Your task to perform on an android device: toggle improve location accuracy Image 0: 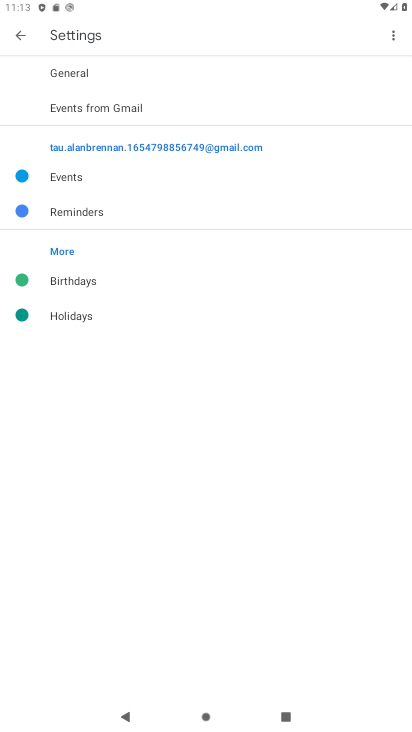
Step 0: press home button
Your task to perform on an android device: toggle improve location accuracy Image 1: 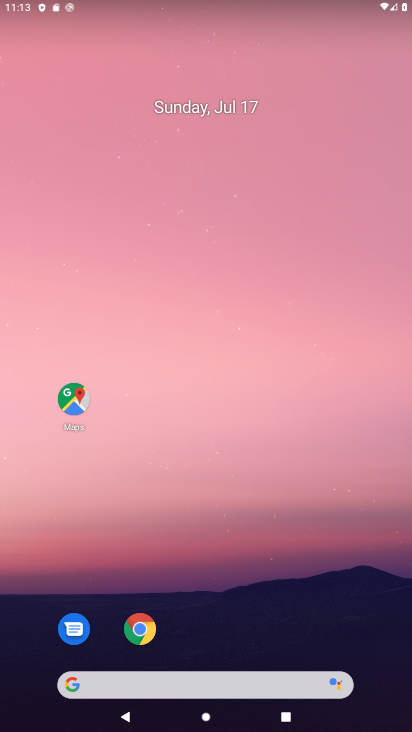
Step 1: drag from (311, 646) to (280, 3)
Your task to perform on an android device: toggle improve location accuracy Image 2: 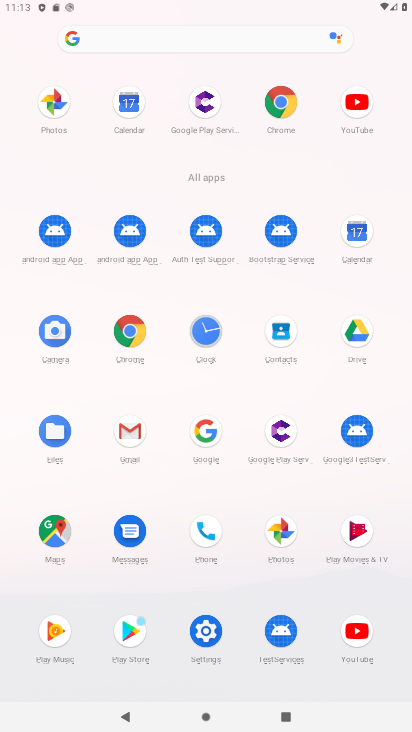
Step 2: click (201, 602)
Your task to perform on an android device: toggle improve location accuracy Image 3: 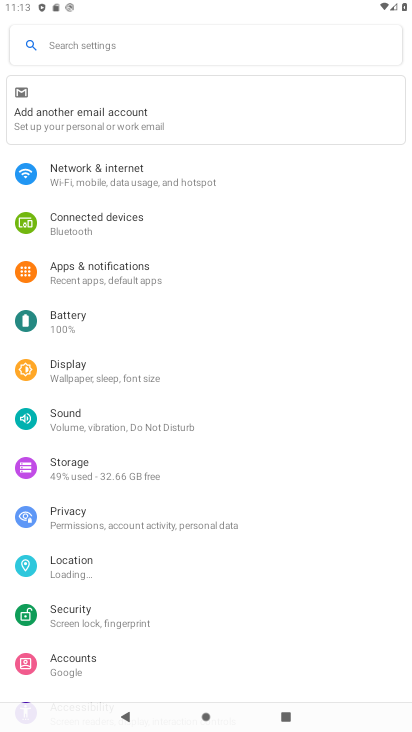
Step 3: drag from (128, 529) to (152, 6)
Your task to perform on an android device: toggle improve location accuracy Image 4: 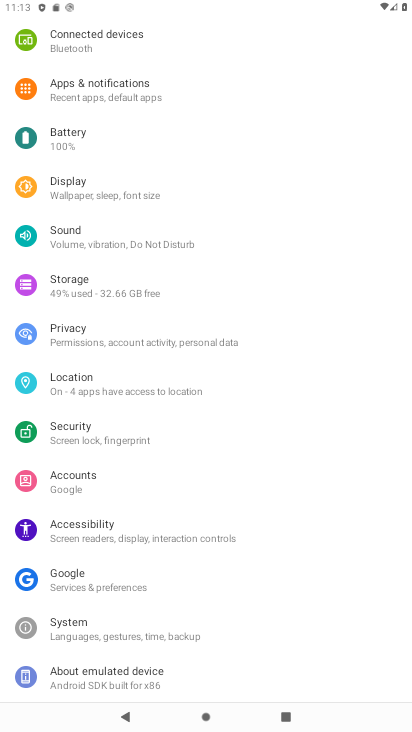
Step 4: click (73, 385)
Your task to perform on an android device: toggle improve location accuracy Image 5: 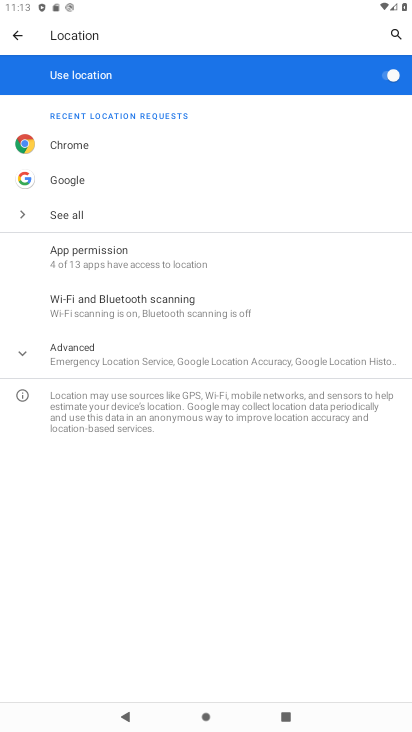
Step 5: click (94, 356)
Your task to perform on an android device: toggle improve location accuracy Image 6: 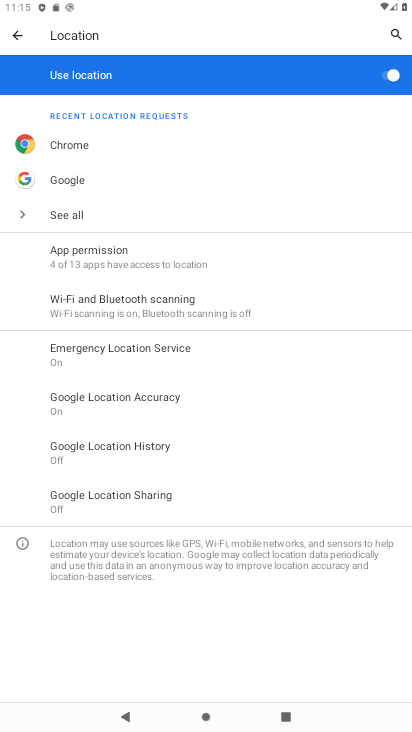
Step 6: click (146, 401)
Your task to perform on an android device: toggle improve location accuracy Image 7: 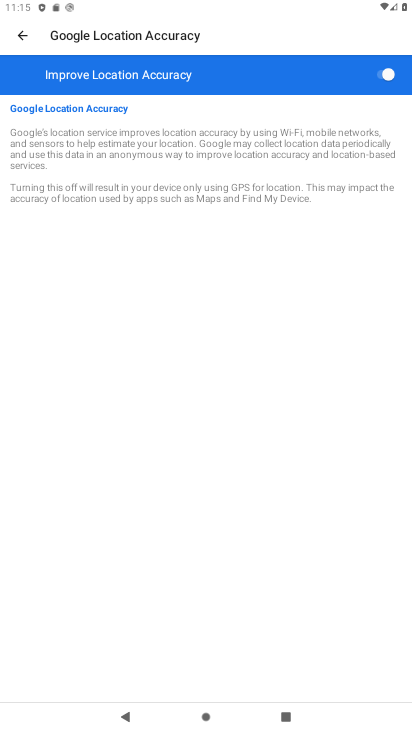
Step 7: task complete